Your task to perform on an android device: Open Google Chrome and open the bookmarks view Image 0: 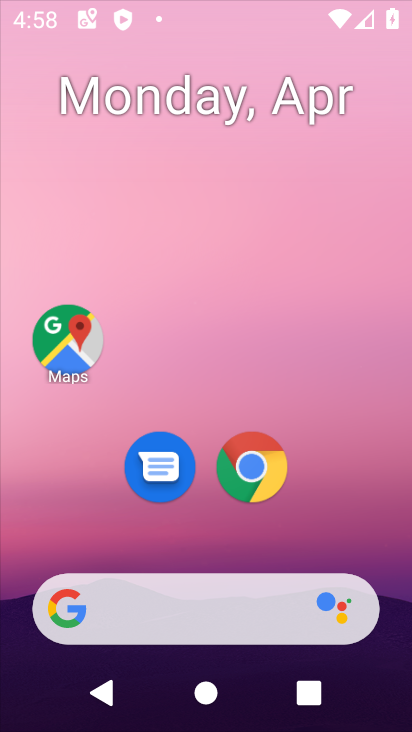
Step 0: drag from (314, 572) to (320, 98)
Your task to perform on an android device: Open Google Chrome and open the bookmarks view Image 1: 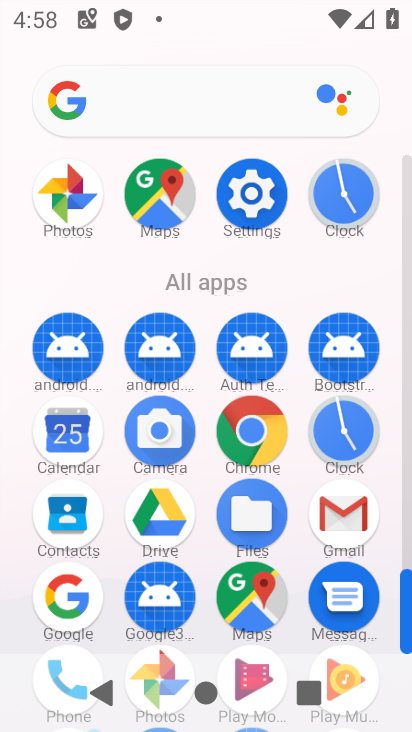
Step 1: click (226, 423)
Your task to perform on an android device: Open Google Chrome and open the bookmarks view Image 2: 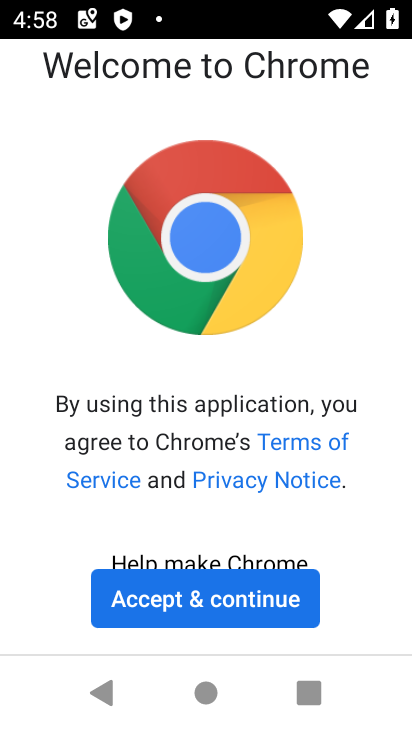
Step 2: click (236, 597)
Your task to perform on an android device: Open Google Chrome and open the bookmarks view Image 3: 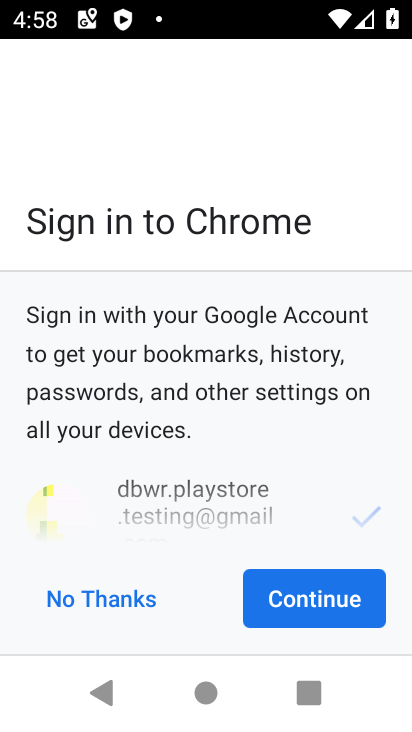
Step 3: click (105, 592)
Your task to perform on an android device: Open Google Chrome and open the bookmarks view Image 4: 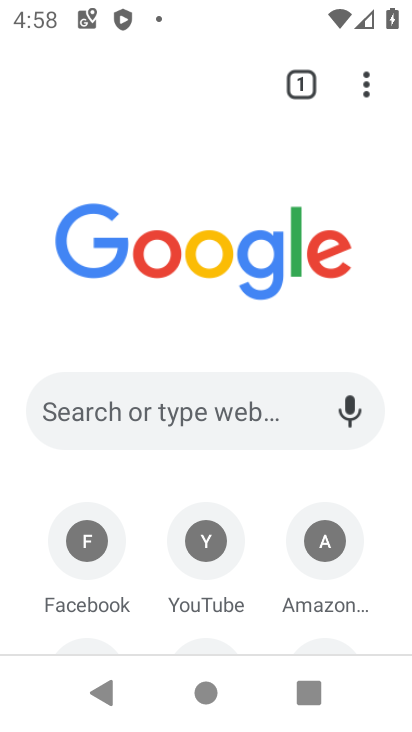
Step 4: task complete